Your task to perform on an android device: turn off smart reply in the gmail app Image 0: 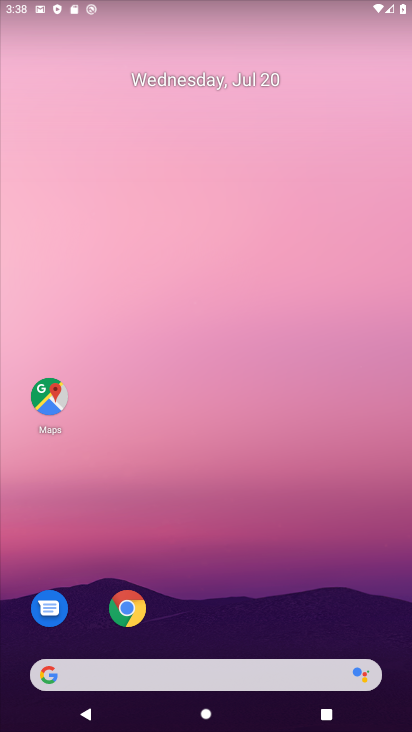
Step 0: drag from (202, 558) to (174, 2)
Your task to perform on an android device: turn off smart reply in the gmail app Image 1: 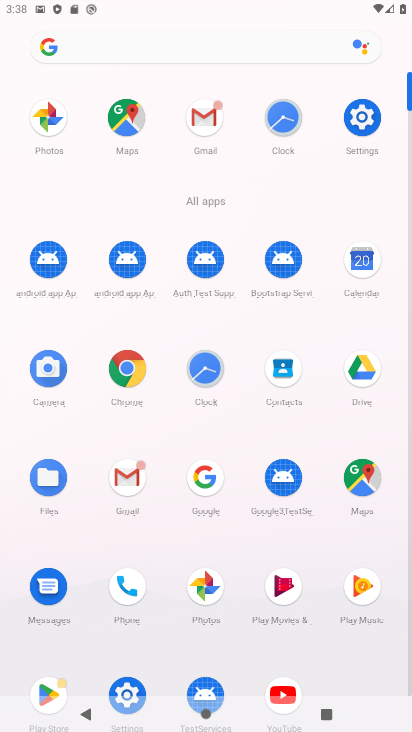
Step 1: click (202, 127)
Your task to perform on an android device: turn off smart reply in the gmail app Image 2: 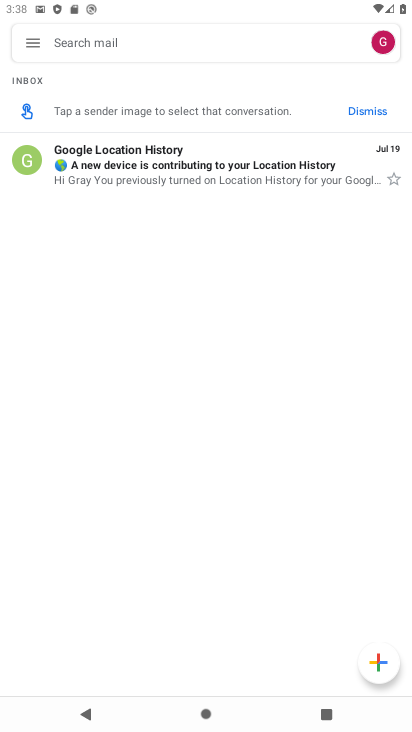
Step 2: click (32, 43)
Your task to perform on an android device: turn off smart reply in the gmail app Image 3: 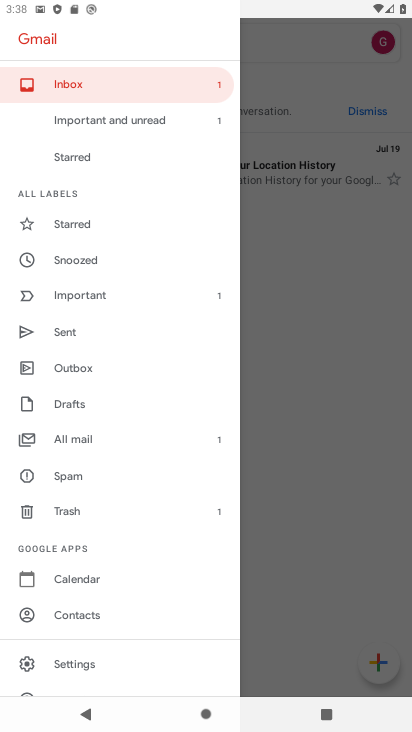
Step 3: click (62, 670)
Your task to perform on an android device: turn off smart reply in the gmail app Image 4: 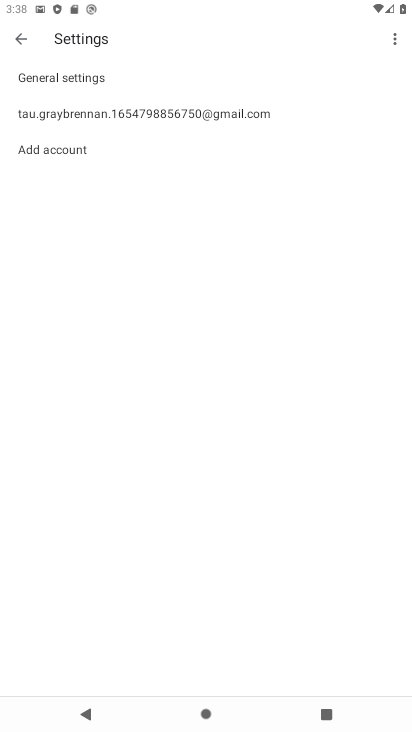
Step 4: click (252, 105)
Your task to perform on an android device: turn off smart reply in the gmail app Image 5: 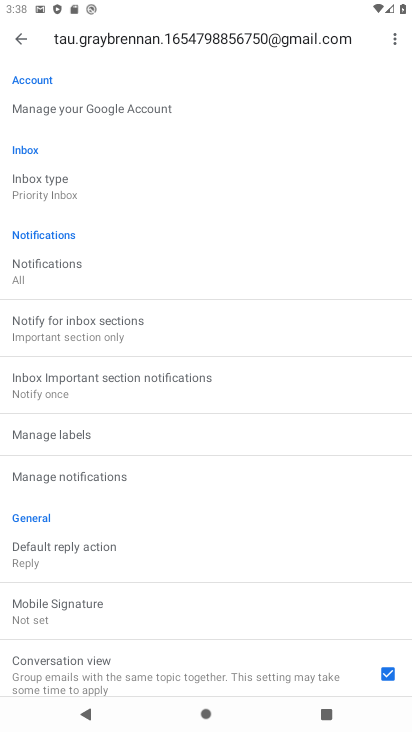
Step 5: drag from (157, 628) to (145, 186)
Your task to perform on an android device: turn off smart reply in the gmail app Image 6: 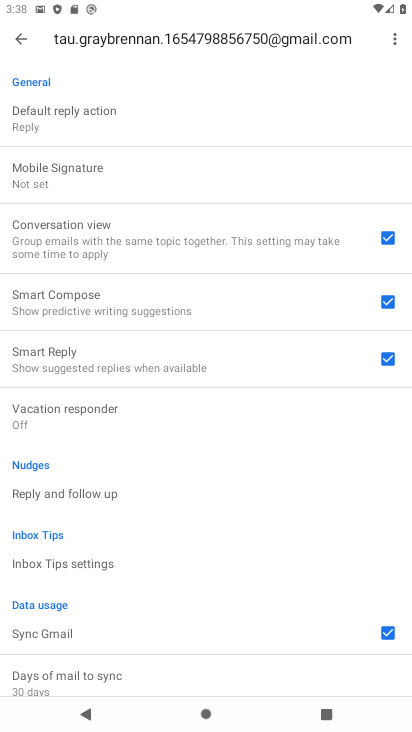
Step 6: click (389, 353)
Your task to perform on an android device: turn off smart reply in the gmail app Image 7: 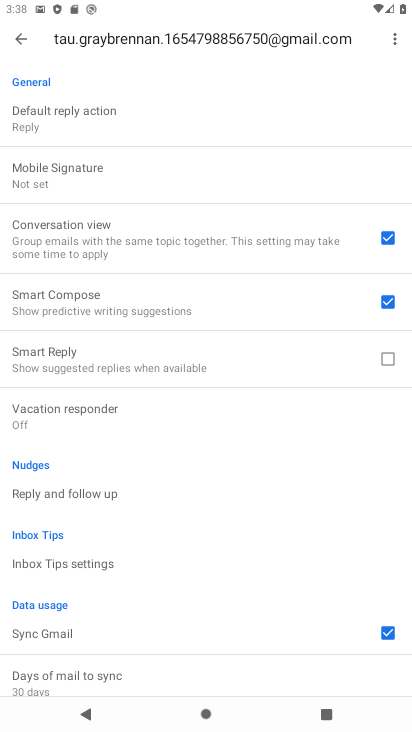
Step 7: task complete